Your task to perform on an android device: Go to wifi settings Image 0: 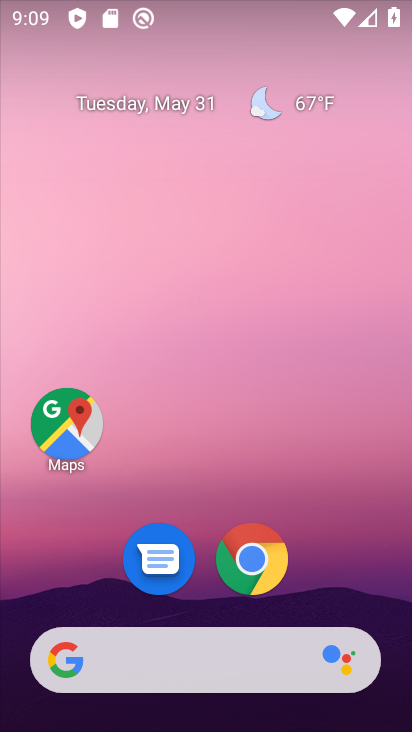
Step 0: drag from (283, 590) to (343, 79)
Your task to perform on an android device: Go to wifi settings Image 1: 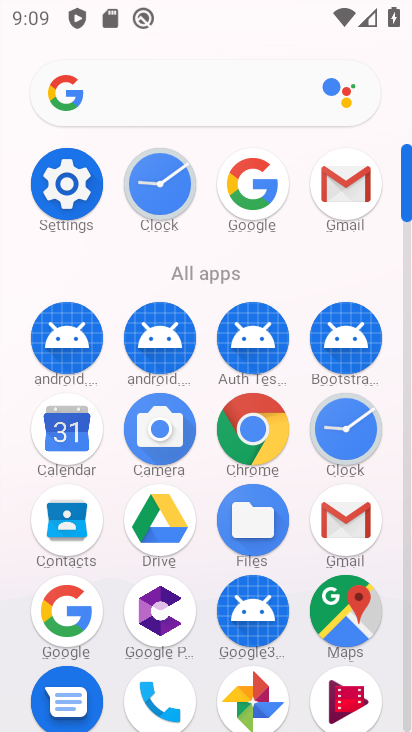
Step 1: click (74, 181)
Your task to perform on an android device: Go to wifi settings Image 2: 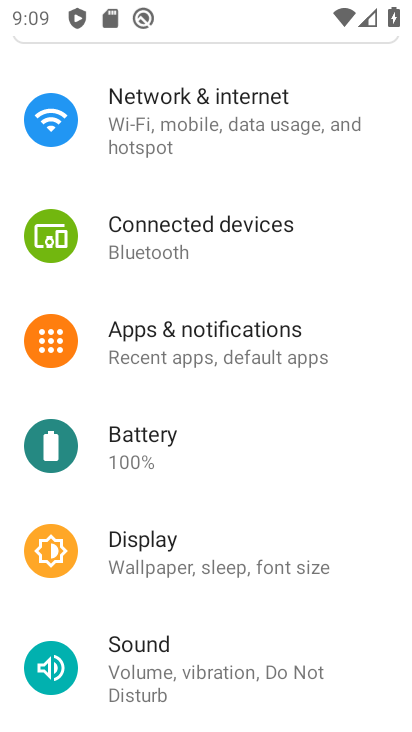
Step 2: click (179, 128)
Your task to perform on an android device: Go to wifi settings Image 3: 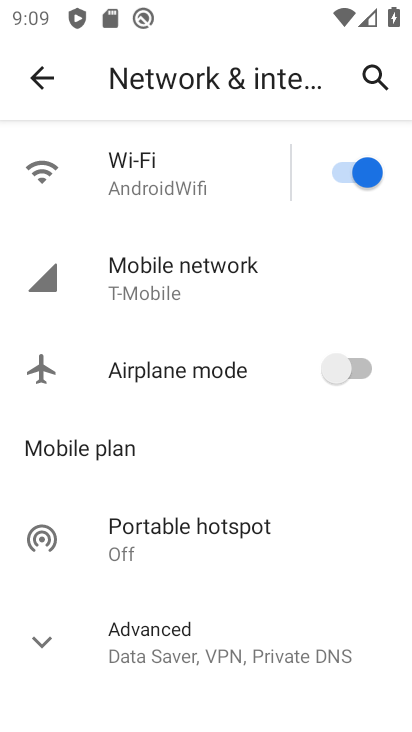
Step 3: click (188, 162)
Your task to perform on an android device: Go to wifi settings Image 4: 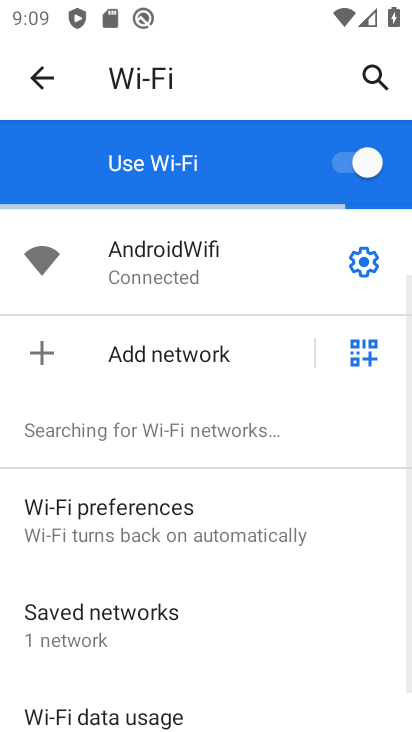
Step 4: click (199, 264)
Your task to perform on an android device: Go to wifi settings Image 5: 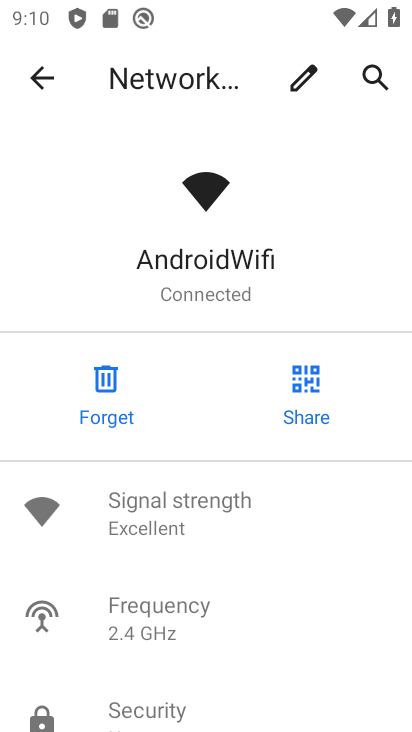
Step 5: task complete